Your task to perform on an android device: turn off javascript in the chrome app Image 0: 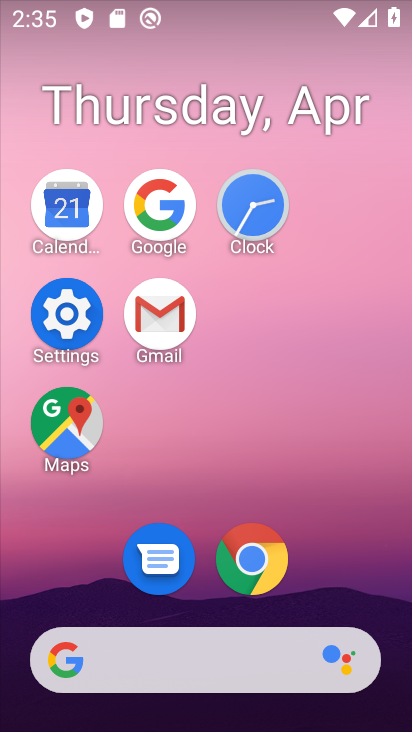
Step 0: click (248, 547)
Your task to perform on an android device: turn off javascript in the chrome app Image 1: 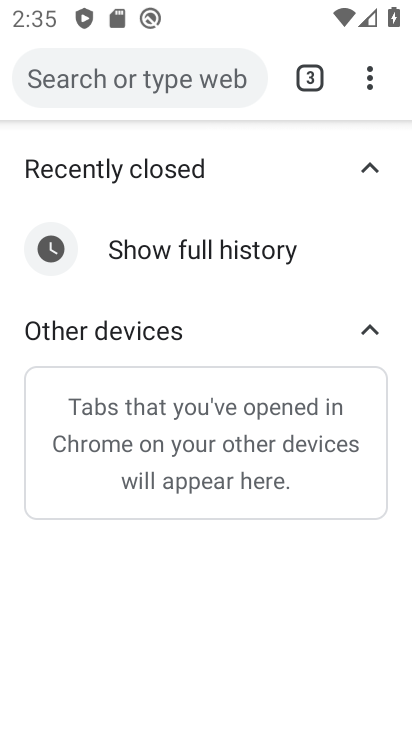
Step 1: click (365, 76)
Your task to perform on an android device: turn off javascript in the chrome app Image 2: 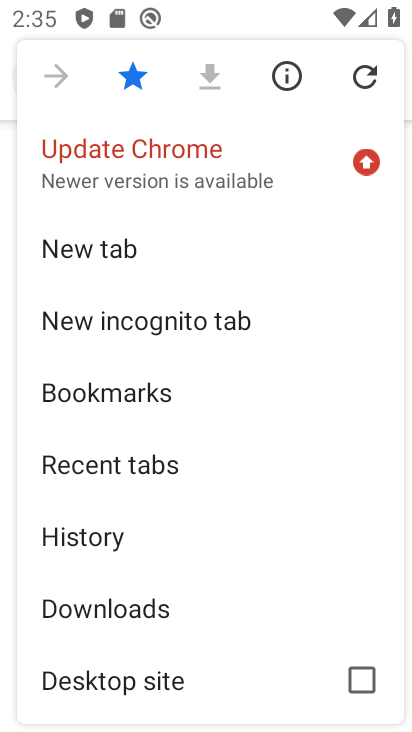
Step 2: drag from (243, 584) to (320, 114)
Your task to perform on an android device: turn off javascript in the chrome app Image 3: 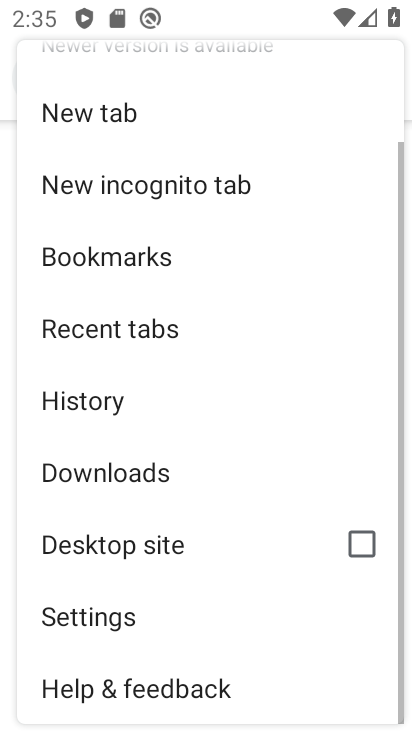
Step 3: drag from (227, 606) to (263, 233)
Your task to perform on an android device: turn off javascript in the chrome app Image 4: 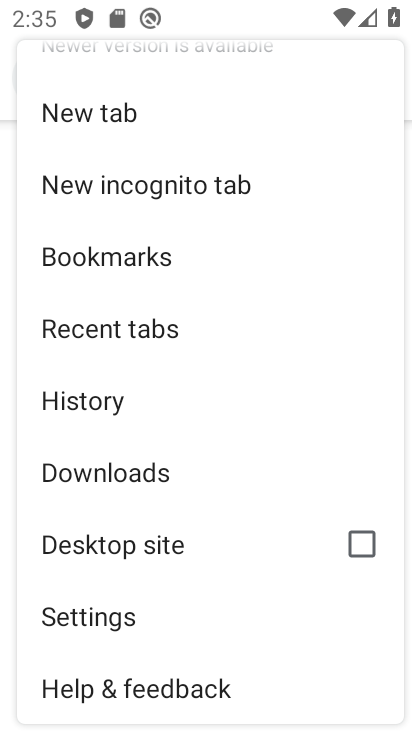
Step 4: click (121, 625)
Your task to perform on an android device: turn off javascript in the chrome app Image 5: 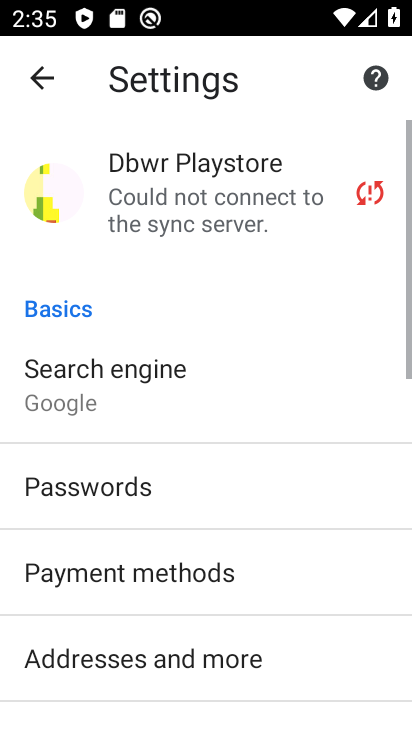
Step 5: drag from (177, 553) to (226, 90)
Your task to perform on an android device: turn off javascript in the chrome app Image 6: 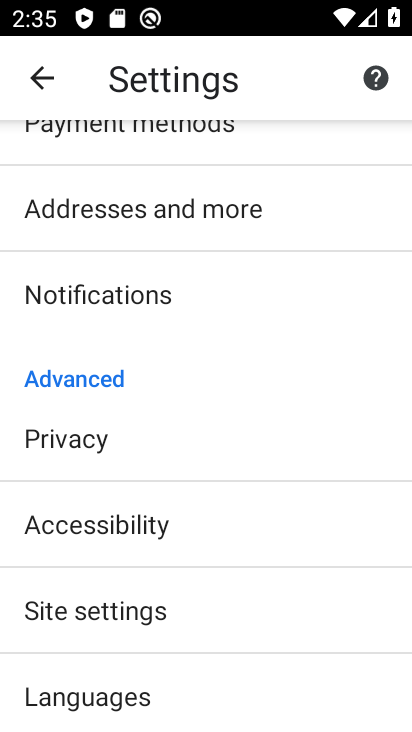
Step 6: drag from (244, 582) to (308, 204)
Your task to perform on an android device: turn off javascript in the chrome app Image 7: 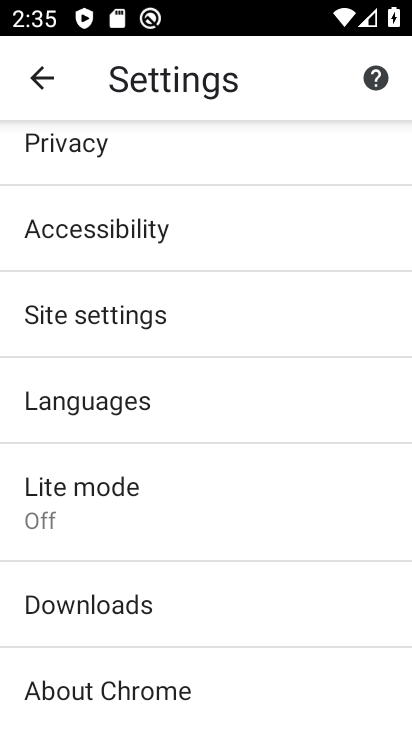
Step 7: click (211, 331)
Your task to perform on an android device: turn off javascript in the chrome app Image 8: 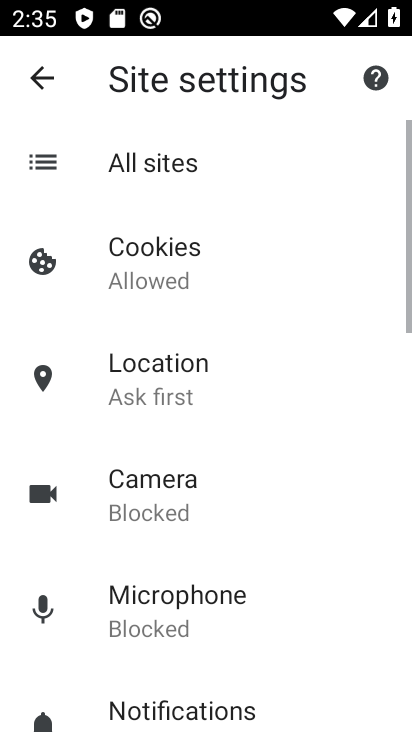
Step 8: drag from (233, 650) to (238, 166)
Your task to perform on an android device: turn off javascript in the chrome app Image 9: 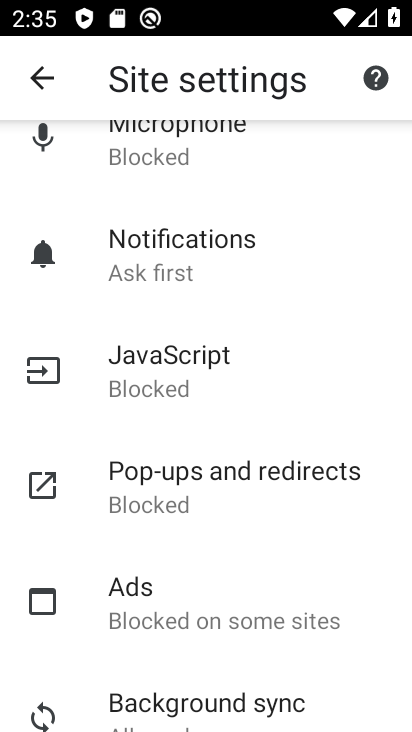
Step 9: drag from (246, 575) to (254, 198)
Your task to perform on an android device: turn off javascript in the chrome app Image 10: 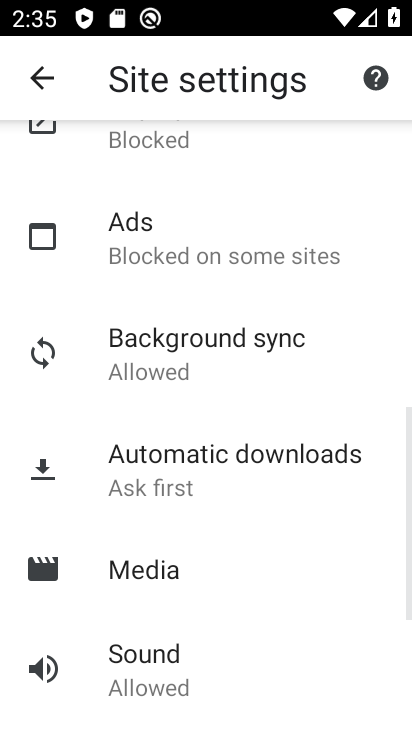
Step 10: drag from (253, 198) to (224, 456)
Your task to perform on an android device: turn off javascript in the chrome app Image 11: 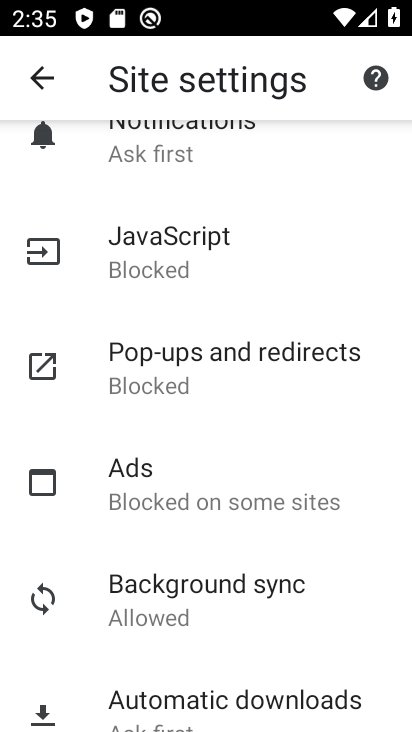
Step 11: click (185, 253)
Your task to perform on an android device: turn off javascript in the chrome app Image 12: 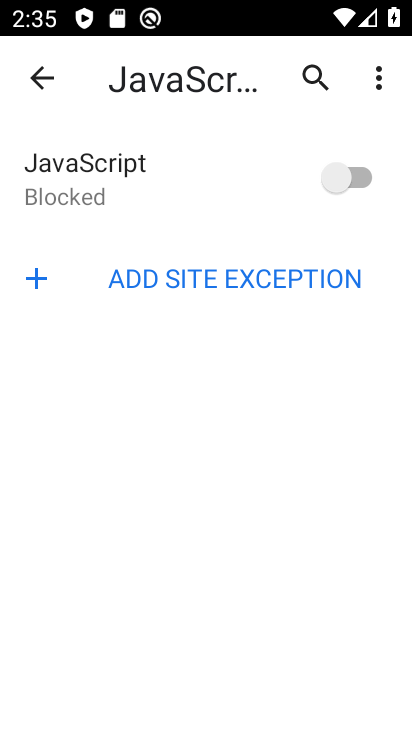
Step 12: task complete